Your task to perform on an android device: change notifications settings Image 0: 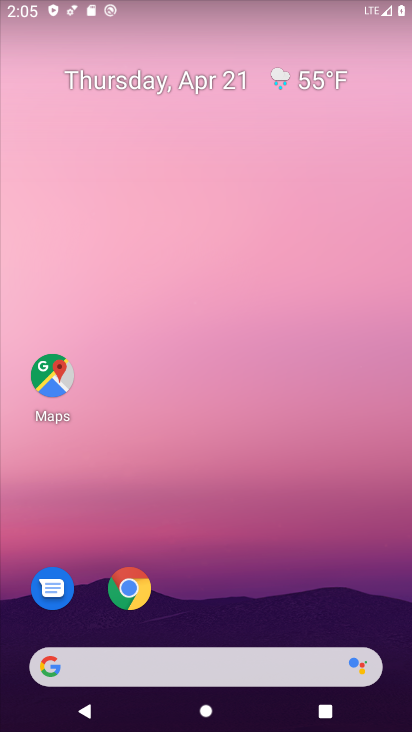
Step 0: drag from (205, 598) to (228, 1)
Your task to perform on an android device: change notifications settings Image 1: 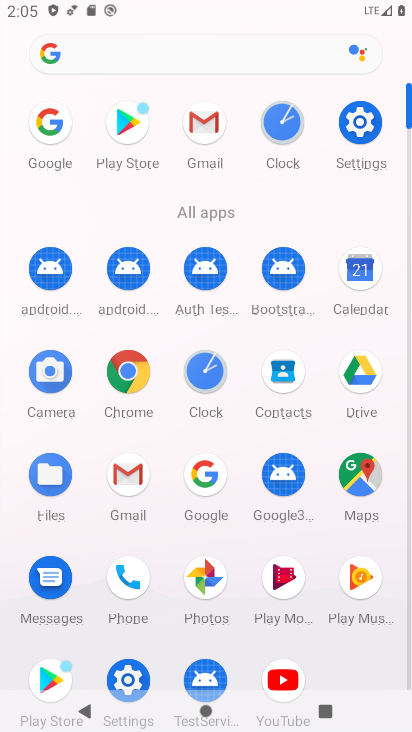
Step 1: click (364, 115)
Your task to perform on an android device: change notifications settings Image 2: 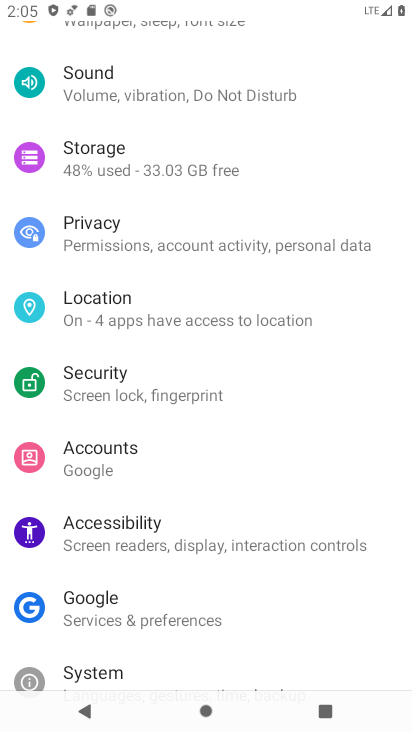
Step 2: drag from (171, 545) to (179, 625)
Your task to perform on an android device: change notifications settings Image 3: 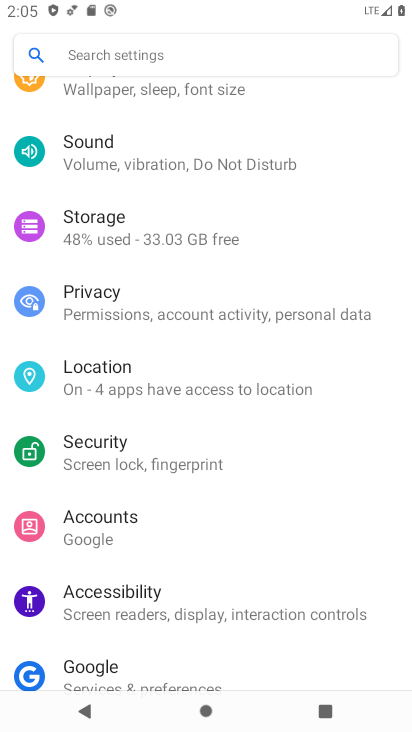
Step 3: drag from (171, 499) to (152, 578)
Your task to perform on an android device: change notifications settings Image 4: 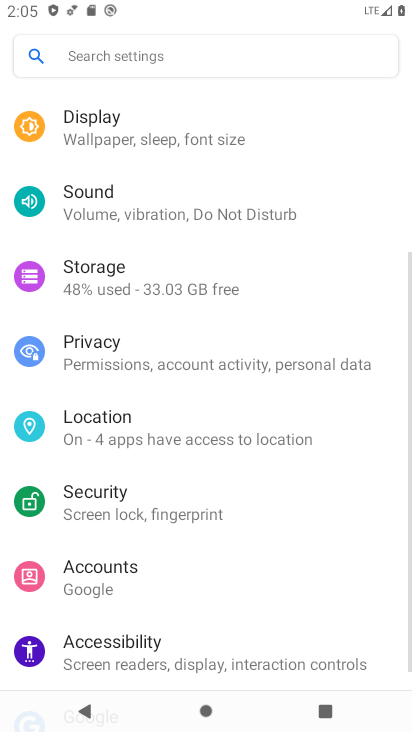
Step 4: drag from (115, 444) to (113, 528)
Your task to perform on an android device: change notifications settings Image 5: 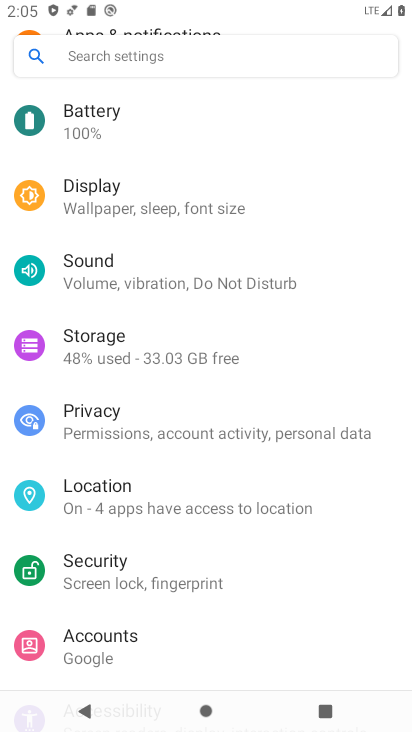
Step 5: drag from (136, 352) to (132, 434)
Your task to perform on an android device: change notifications settings Image 6: 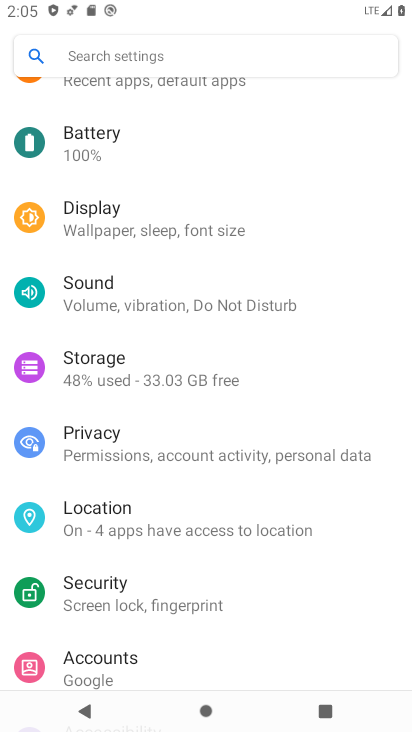
Step 6: drag from (126, 370) to (131, 455)
Your task to perform on an android device: change notifications settings Image 7: 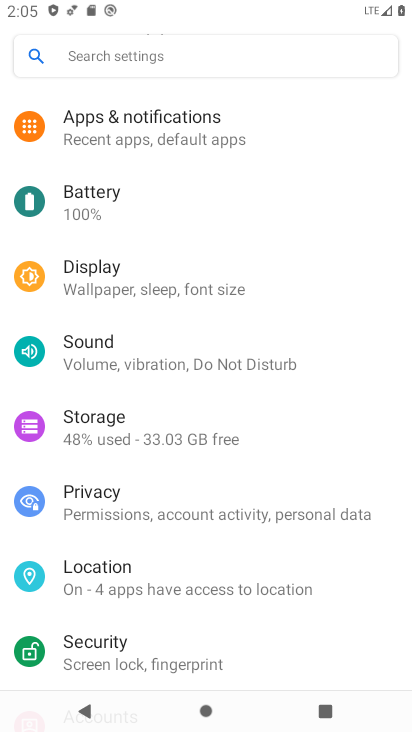
Step 7: drag from (142, 392) to (146, 470)
Your task to perform on an android device: change notifications settings Image 8: 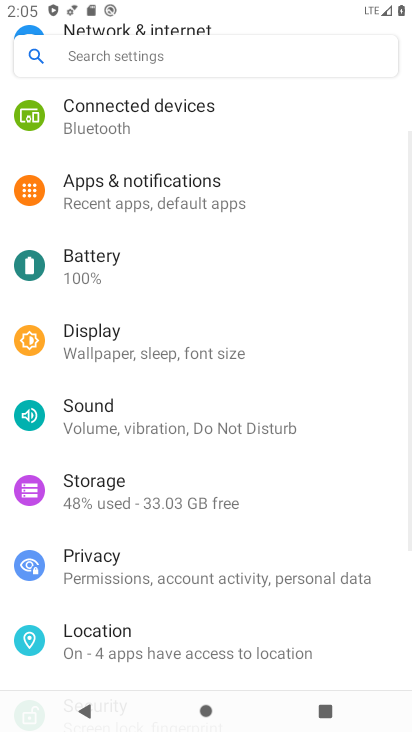
Step 8: drag from (122, 382) to (122, 463)
Your task to perform on an android device: change notifications settings Image 9: 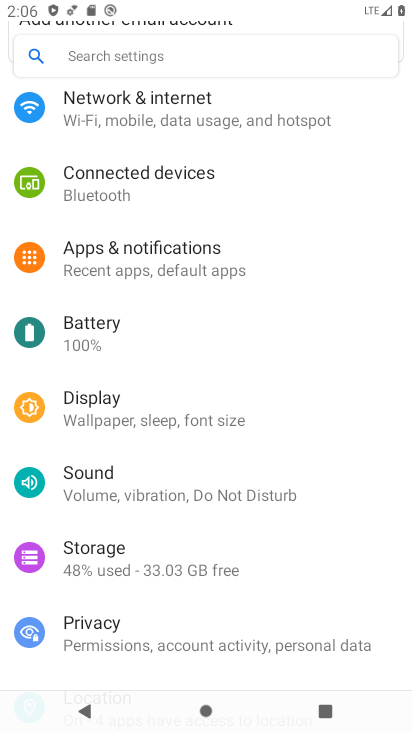
Step 9: drag from (114, 411) to (145, 499)
Your task to perform on an android device: change notifications settings Image 10: 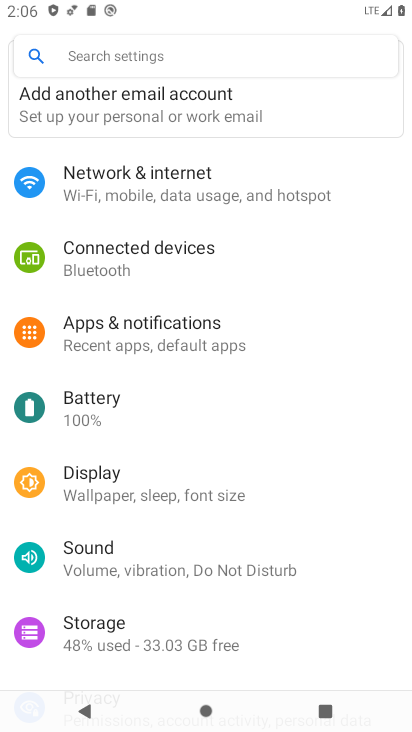
Step 10: drag from (137, 421) to (167, 490)
Your task to perform on an android device: change notifications settings Image 11: 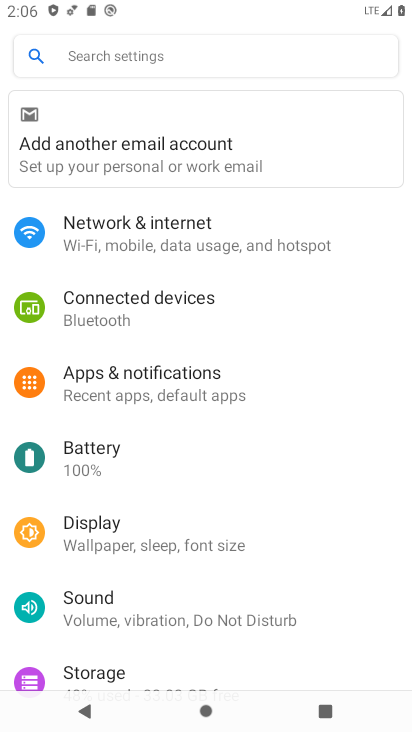
Step 11: click (148, 397)
Your task to perform on an android device: change notifications settings Image 12: 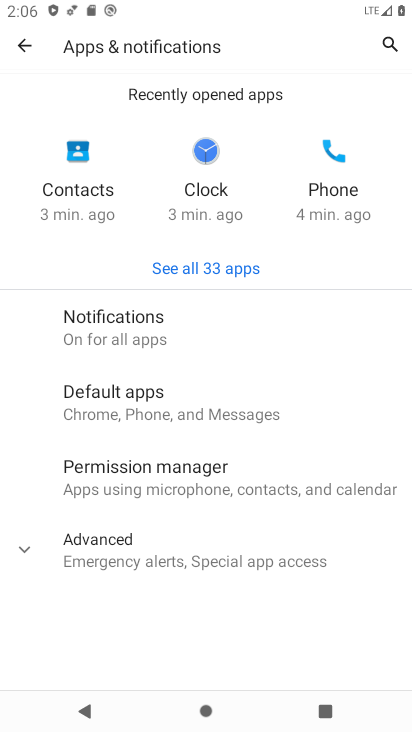
Step 12: click (155, 334)
Your task to perform on an android device: change notifications settings Image 13: 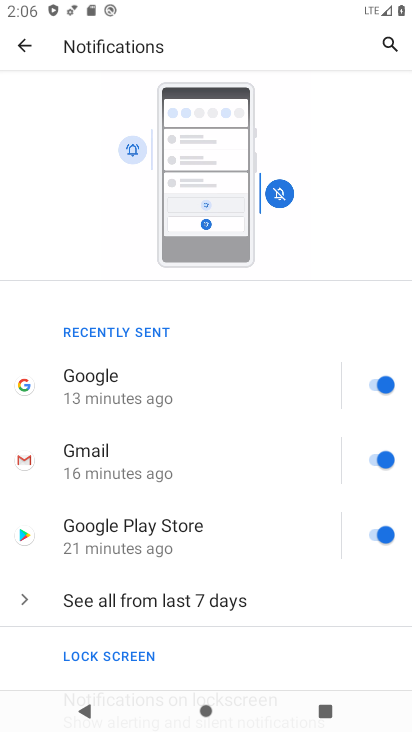
Step 13: click (218, 617)
Your task to perform on an android device: change notifications settings Image 14: 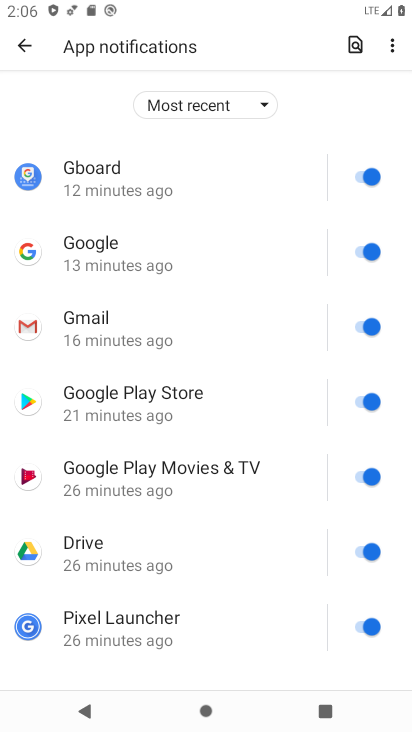
Step 14: click (361, 182)
Your task to perform on an android device: change notifications settings Image 15: 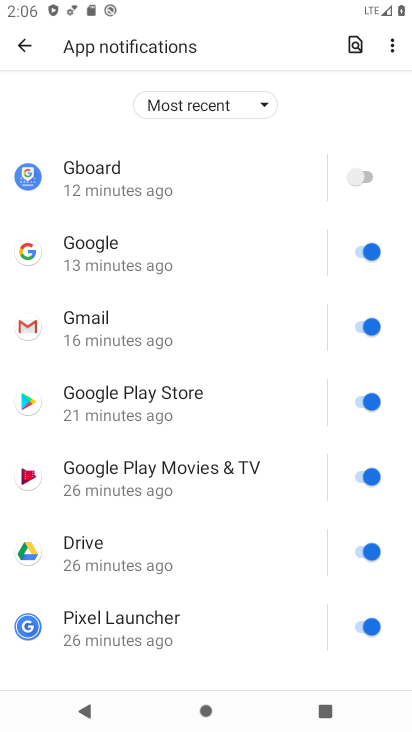
Step 15: click (366, 246)
Your task to perform on an android device: change notifications settings Image 16: 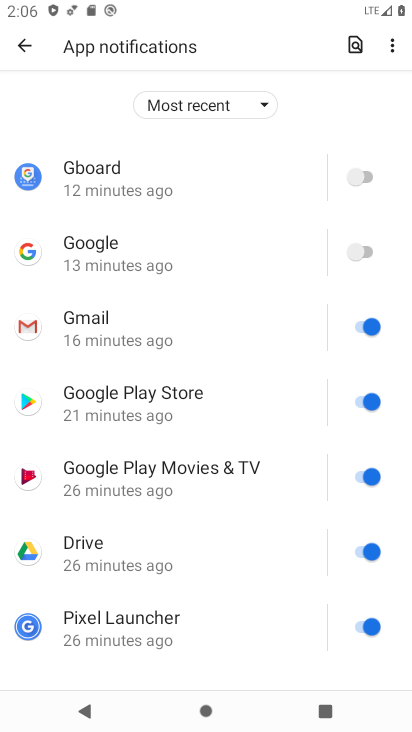
Step 16: click (355, 318)
Your task to perform on an android device: change notifications settings Image 17: 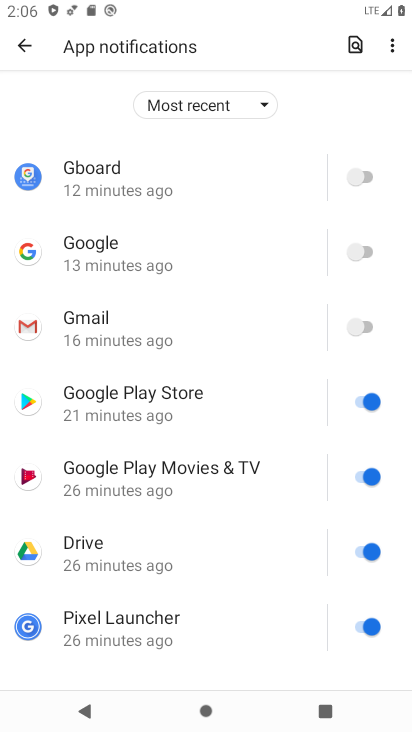
Step 17: click (365, 393)
Your task to perform on an android device: change notifications settings Image 18: 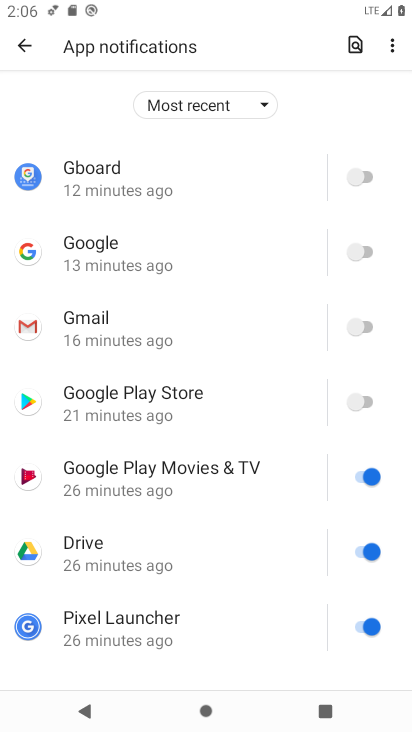
Step 18: click (377, 474)
Your task to perform on an android device: change notifications settings Image 19: 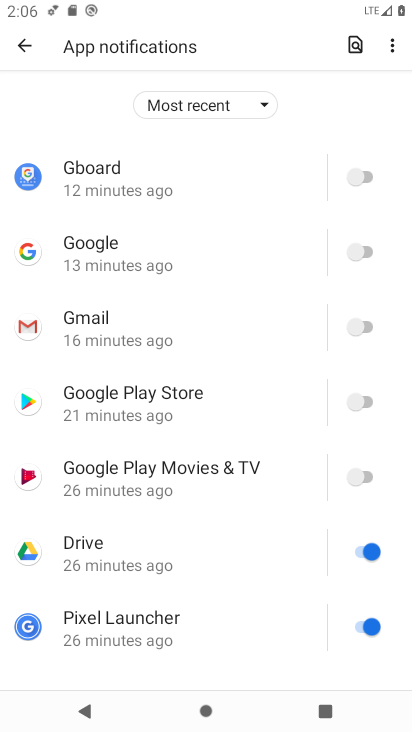
Step 19: click (349, 552)
Your task to perform on an android device: change notifications settings Image 20: 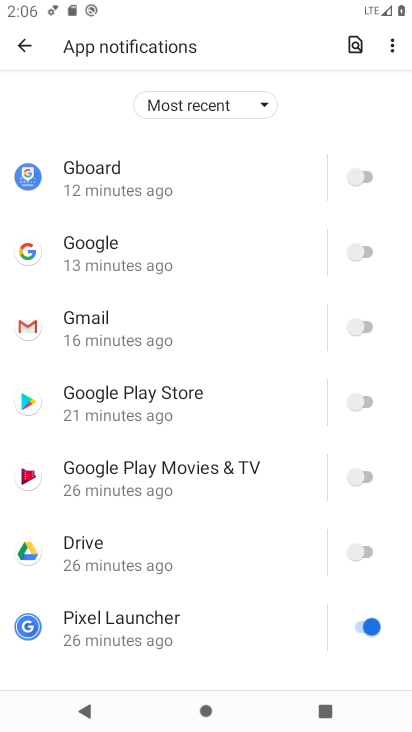
Step 20: click (356, 619)
Your task to perform on an android device: change notifications settings Image 21: 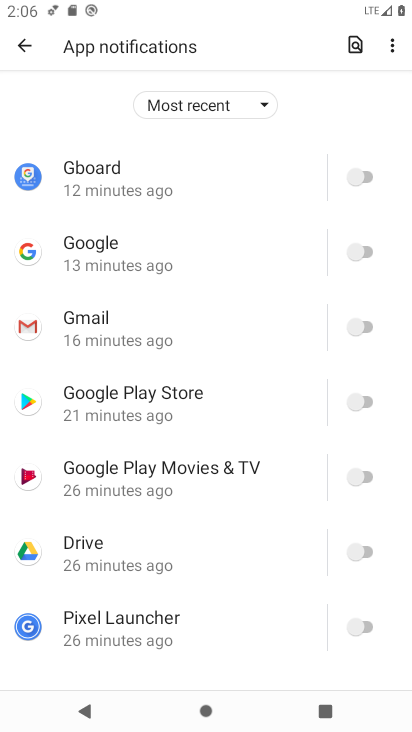
Step 21: drag from (281, 628) to (271, 175)
Your task to perform on an android device: change notifications settings Image 22: 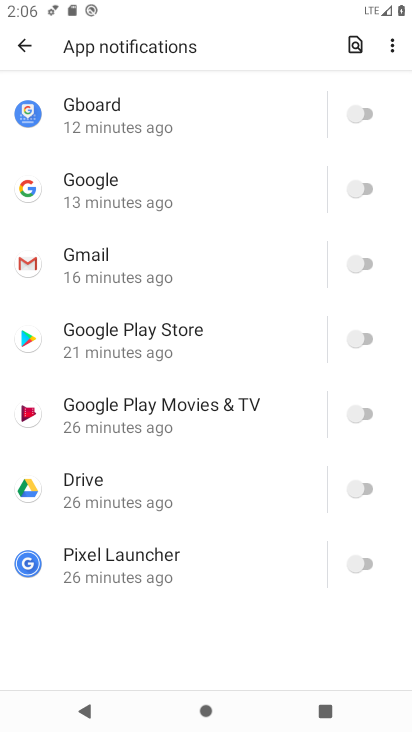
Step 22: click (12, 49)
Your task to perform on an android device: change notifications settings Image 23: 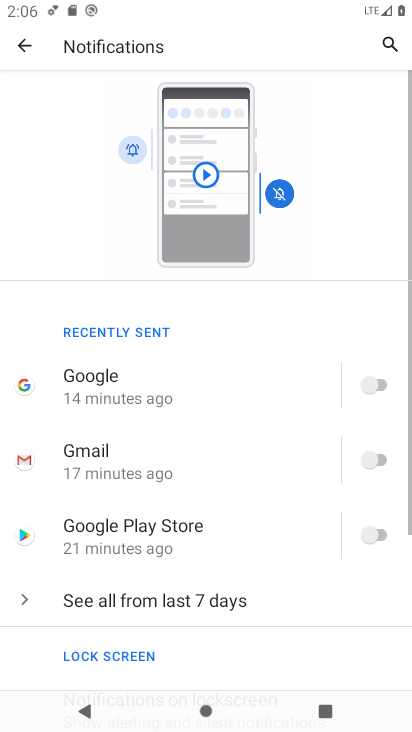
Step 23: drag from (67, 583) to (119, 338)
Your task to perform on an android device: change notifications settings Image 24: 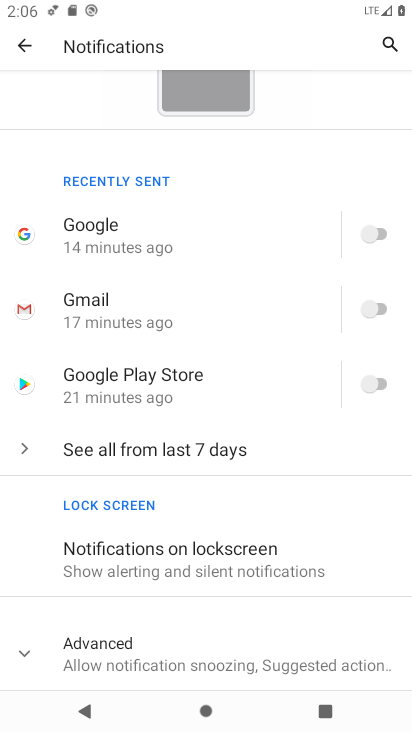
Step 24: click (130, 576)
Your task to perform on an android device: change notifications settings Image 25: 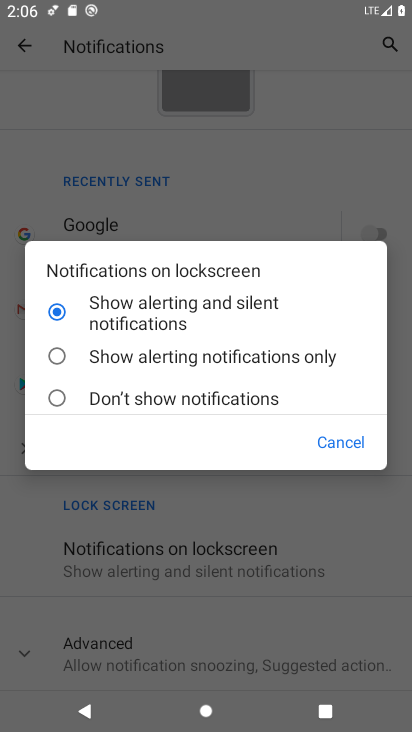
Step 25: click (173, 356)
Your task to perform on an android device: change notifications settings Image 26: 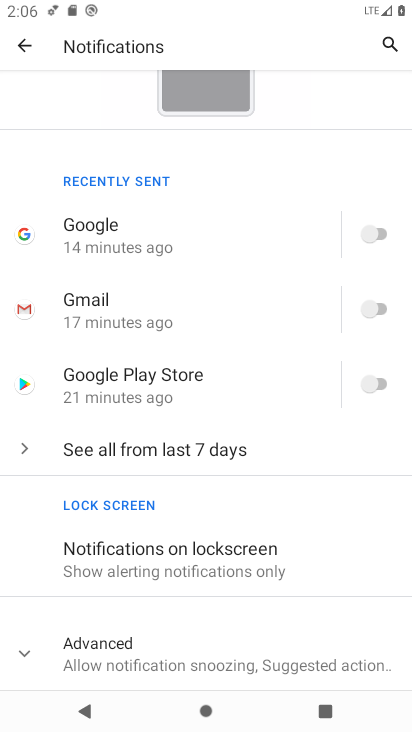
Step 26: drag from (114, 636) to (117, 508)
Your task to perform on an android device: change notifications settings Image 27: 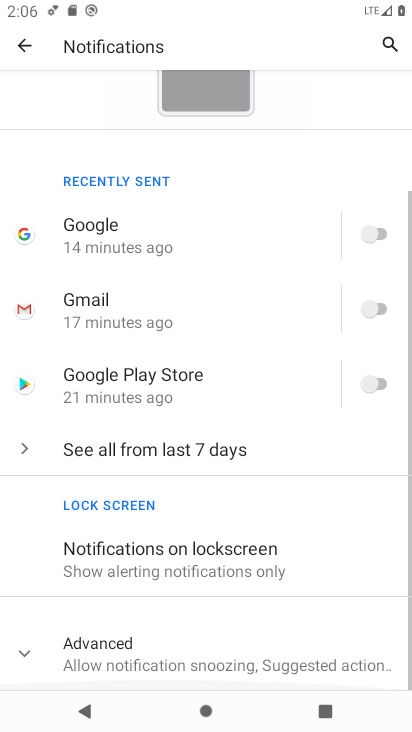
Step 27: click (122, 651)
Your task to perform on an android device: change notifications settings Image 28: 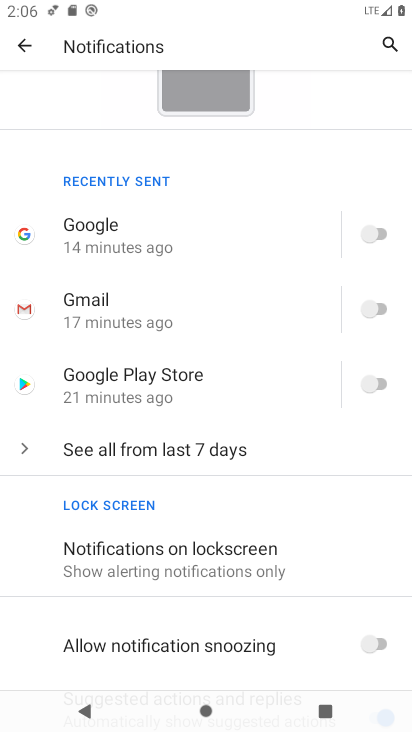
Step 28: drag from (181, 641) to (148, 277)
Your task to perform on an android device: change notifications settings Image 29: 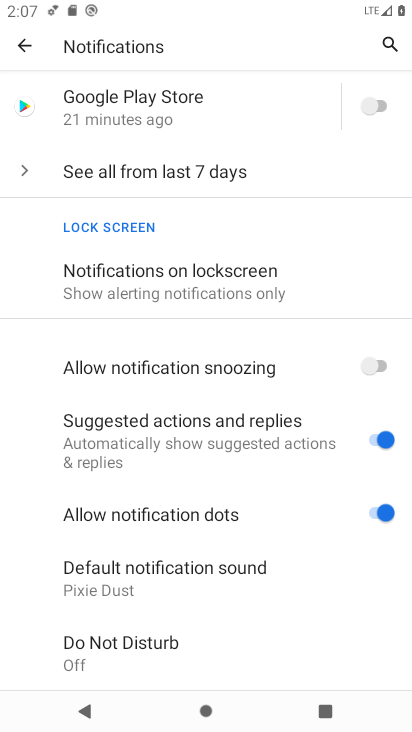
Step 29: click (332, 373)
Your task to perform on an android device: change notifications settings Image 30: 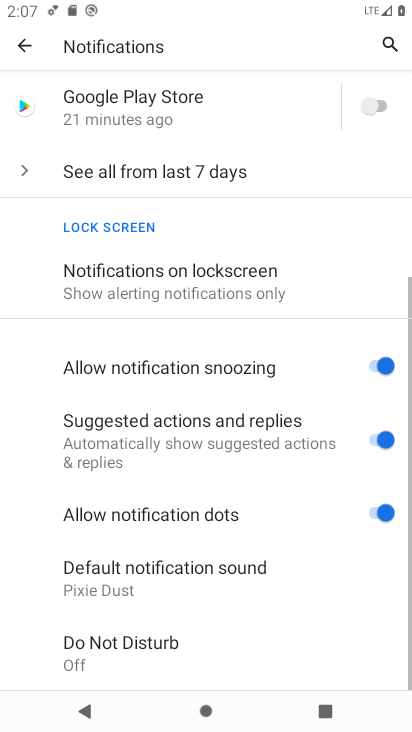
Step 30: click (354, 424)
Your task to perform on an android device: change notifications settings Image 31: 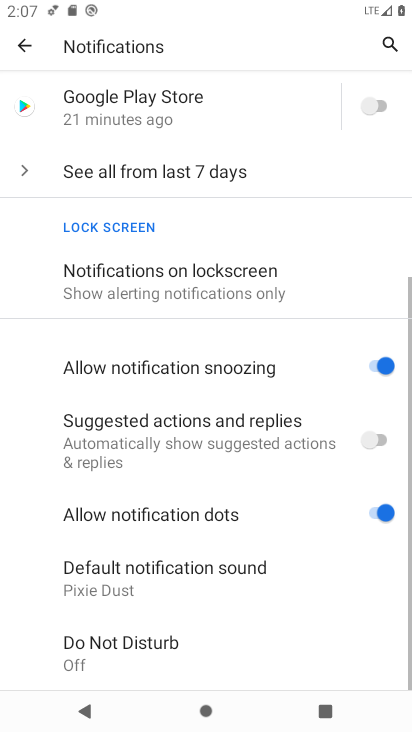
Step 31: click (349, 511)
Your task to perform on an android device: change notifications settings Image 32: 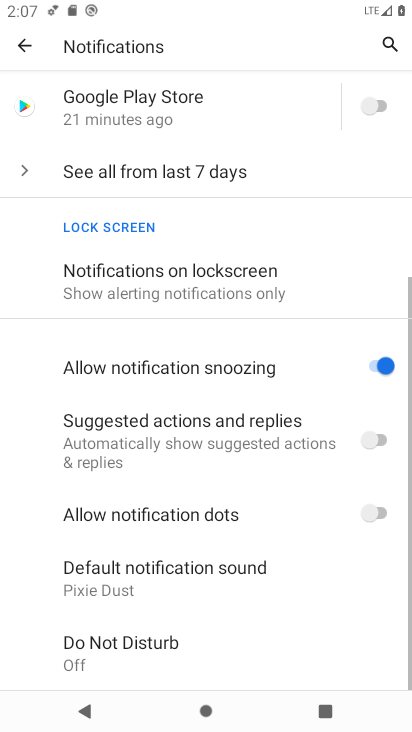
Step 32: task complete